Your task to perform on an android device: Open privacy settings Image 0: 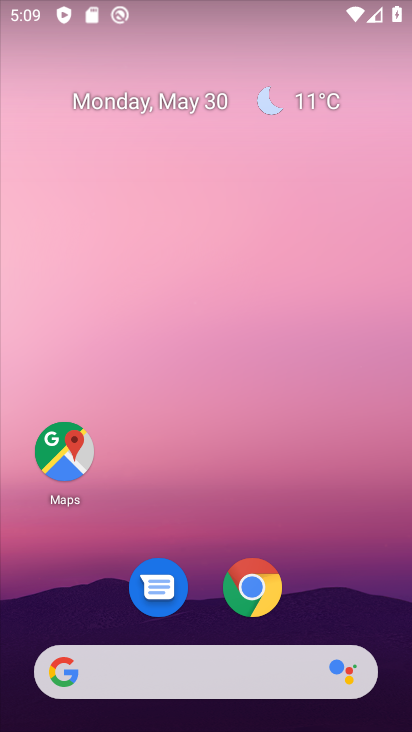
Step 0: drag from (380, 549) to (238, 9)
Your task to perform on an android device: Open privacy settings Image 1: 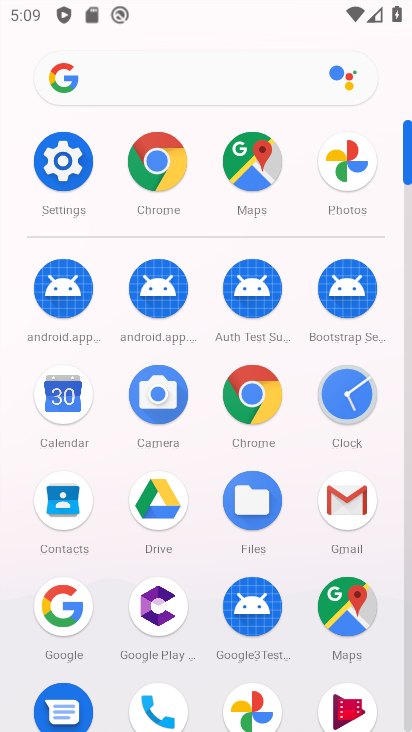
Step 1: drag from (19, 531) to (26, 229)
Your task to perform on an android device: Open privacy settings Image 2: 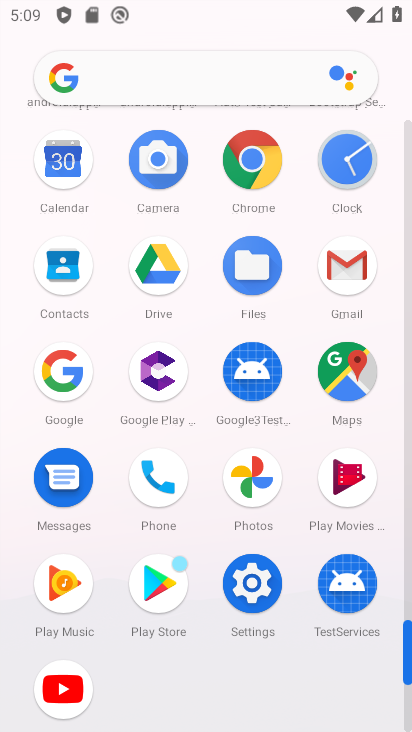
Step 2: click (256, 157)
Your task to perform on an android device: Open privacy settings Image 3: 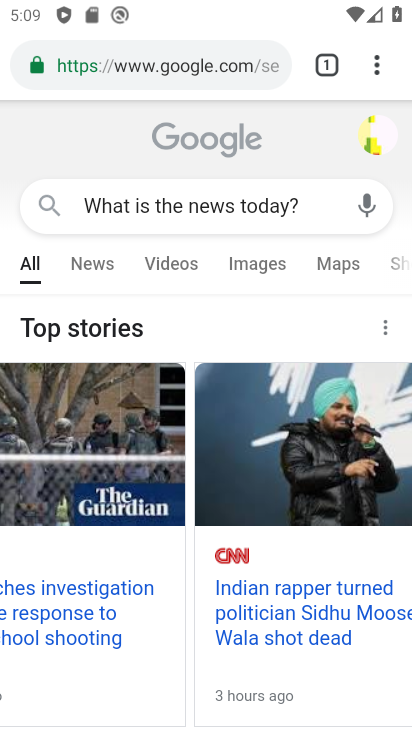
Step 3: drag from (377, 62) to (172, 639)
Your task to perform on an android device: Open privacy settings Image 4: 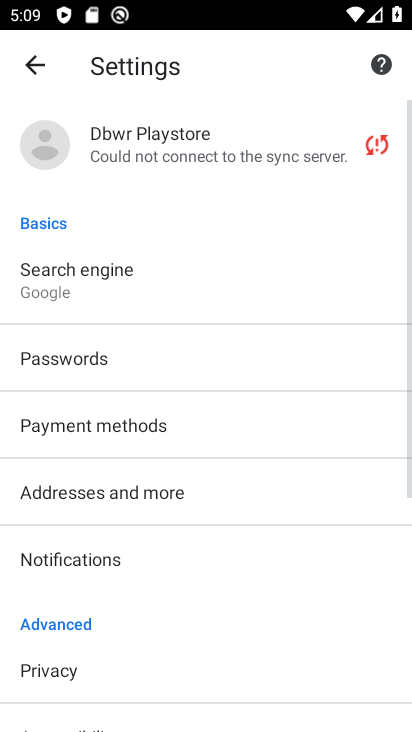
Step 4: click (75, 664)
Your task to perform on an android device: Open privacy settings Image 5: 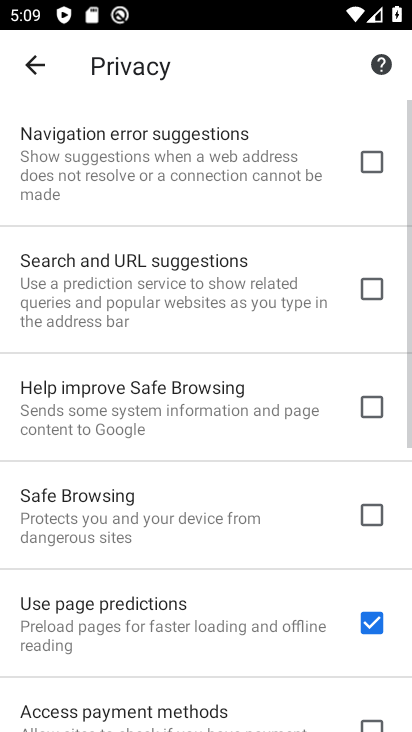
Step 5: task complete